Your task to perform on an android device: turn pop-ups on in chrome Image 0: 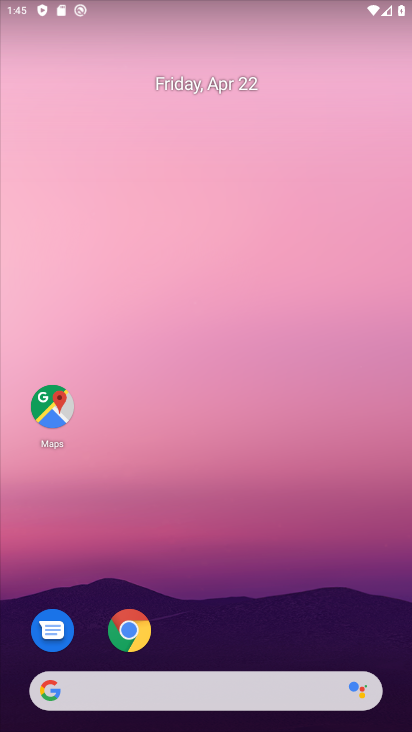
Step 0: click (133, 622)
Your task to perform on an android device: turn pop-ups on in chrome Image 1: 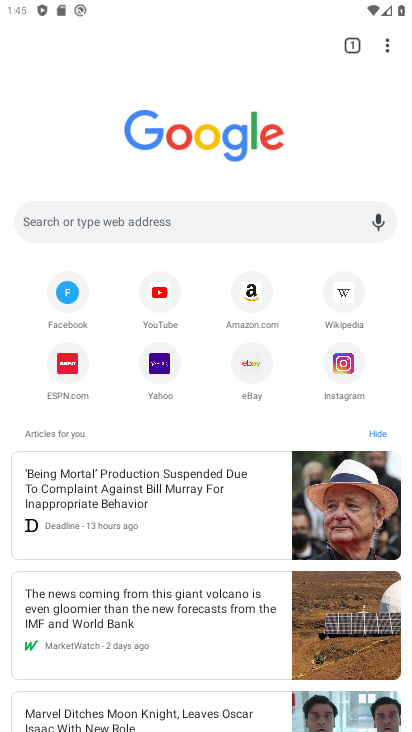
Step 1: click (389, 40)
Your task to perform on an android device: turn pop-ups on in chrome Image 2: 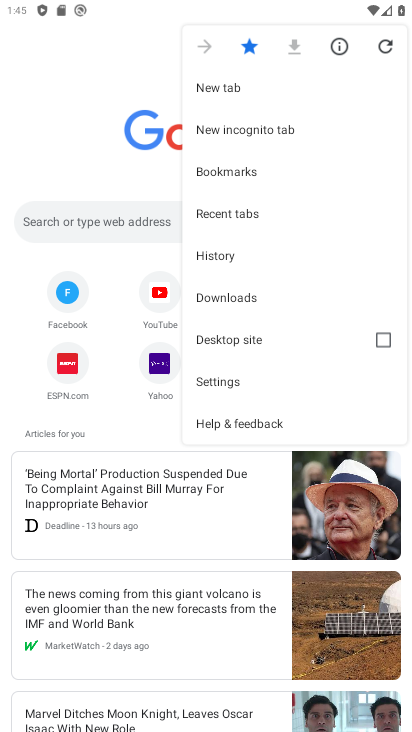
Step 2: click (230, 382)
Your task to perform on an android device: turn pop-ups on in chrome Image 3: 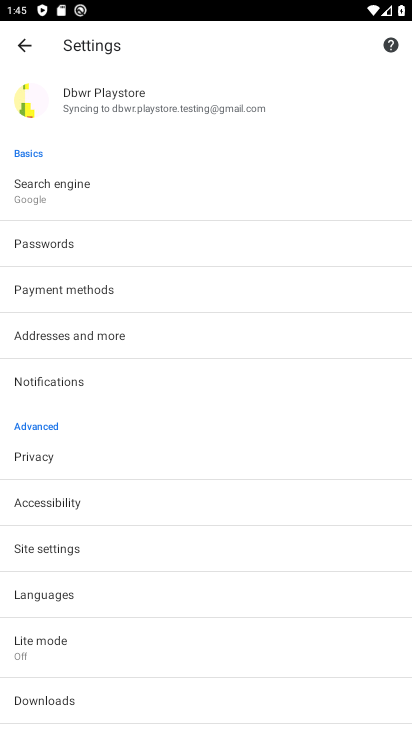
Step 3: click (124, 541)
Your task to perform on an android device: turn pop-ups on in chrome Image 4: 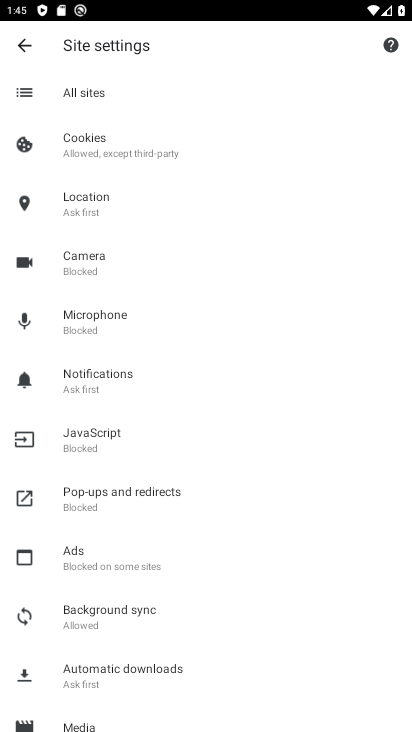
Step 4: click (162, 508)
Your task to perform on an android device: turn pop-ups on in chrome Image 5: 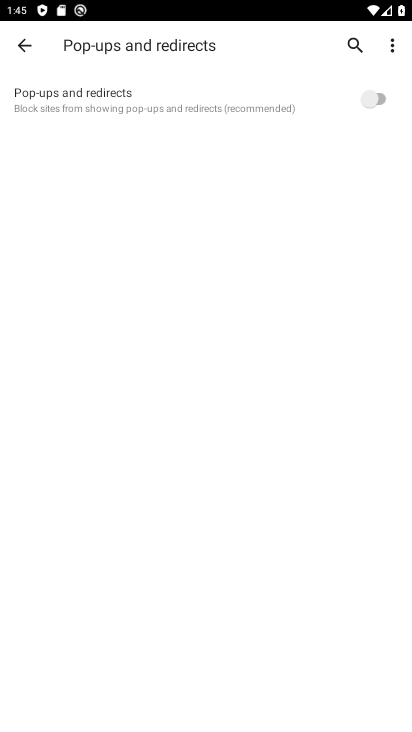
Step 5: click (373, 100)
Your task to perform on an android device: turn pop-ups on in chrome Image 6: 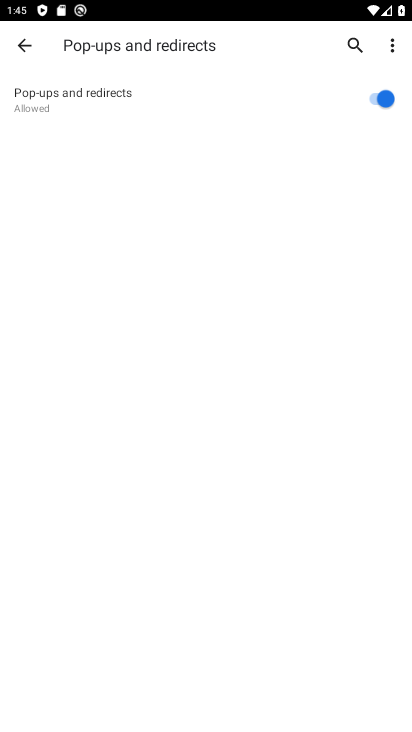
Step 6: task complete